Your task to perform on an android device: Open Google Image 0: 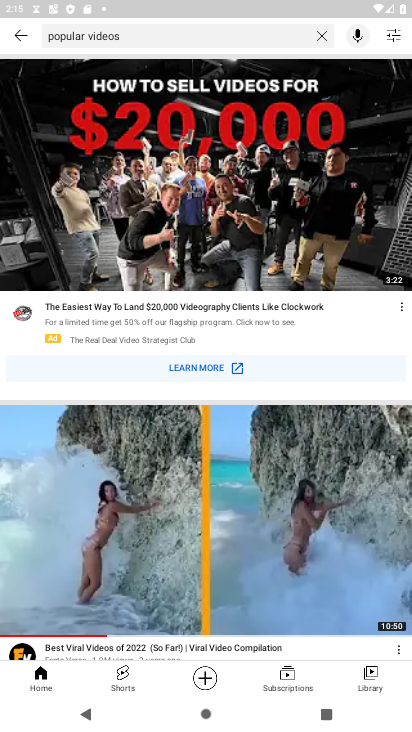
Step 0: click (291, 78)
Your task to perform on an android device: Open Google Image 1: 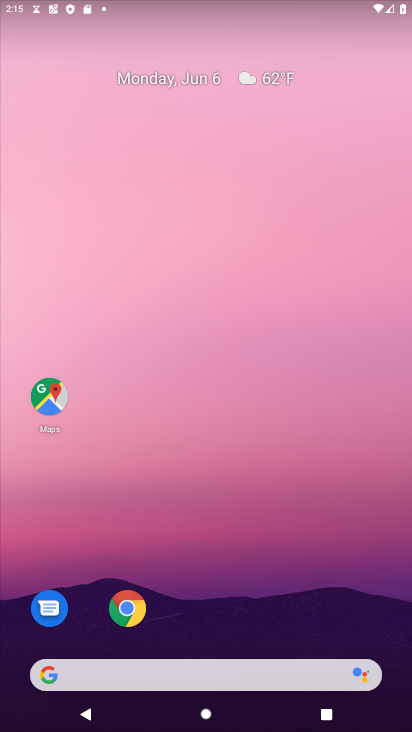
Step 1: drag from (289, 181) to (265, 0)
Your task to perform on an android device: Open Google Image 2: 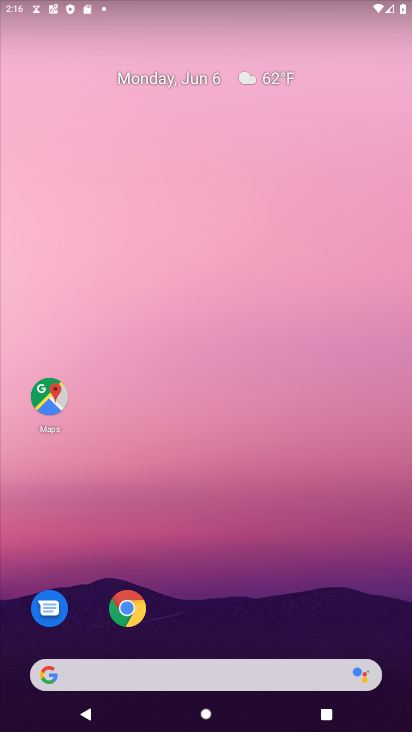
Step 2: drag from (261, 596) to (270, 121)
Your task to perform on an android device: Open Google Image 3: 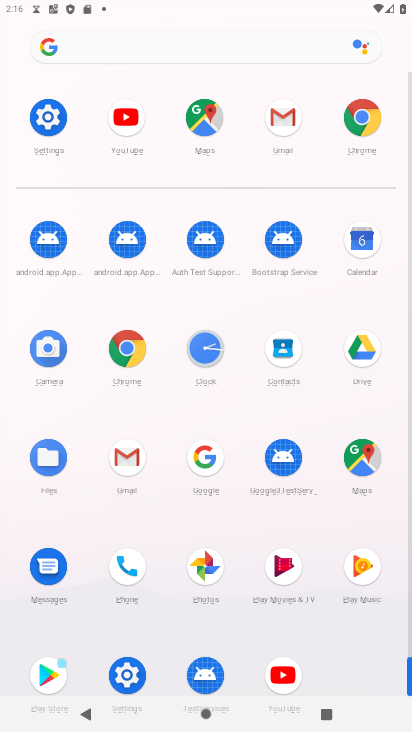
Step 3: click (187, 470)
Your task to perform on an android device: Open Google Image 4: 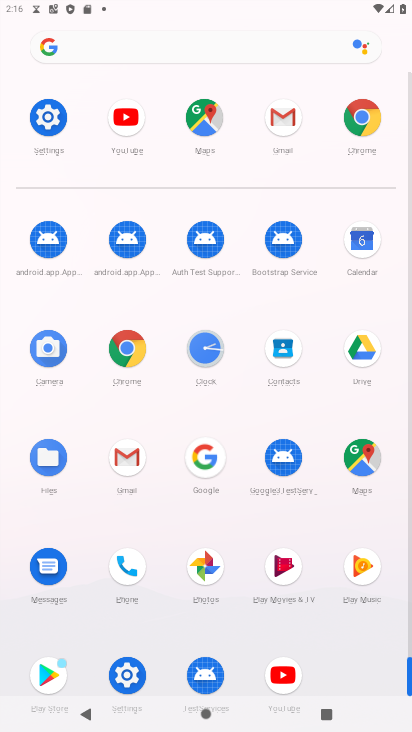
Step 4: click (198, 466)
Your task to perform on an android device: Open Google Image 5: 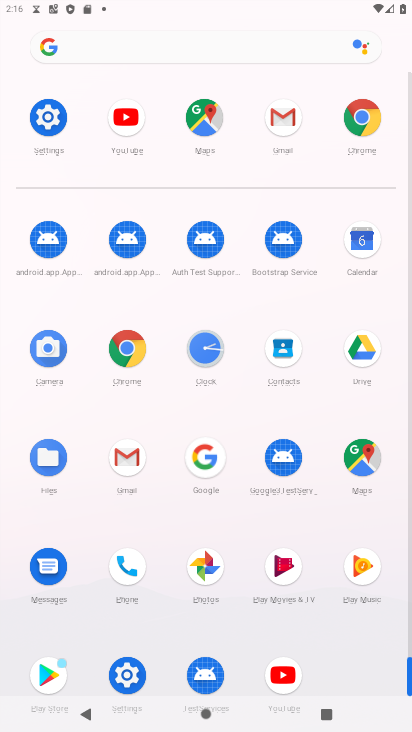
Step 5: click (198, 466)
Your task to perform on an android device: Open Google Image 6: 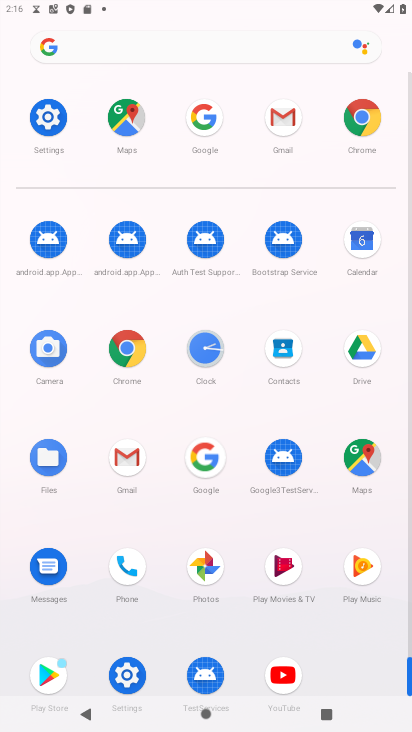
Step 6: click (198, 465)
Your task to perform on an android device: Open Google Image 7: 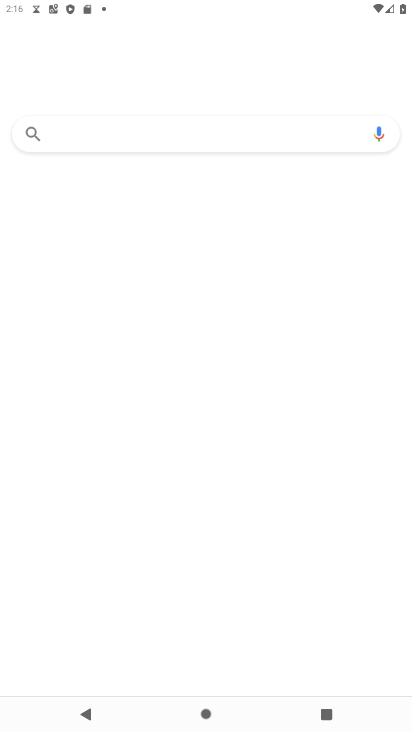
Step 7: click (198, 462)
Your task to perform on an android device: Open Google Image 8: 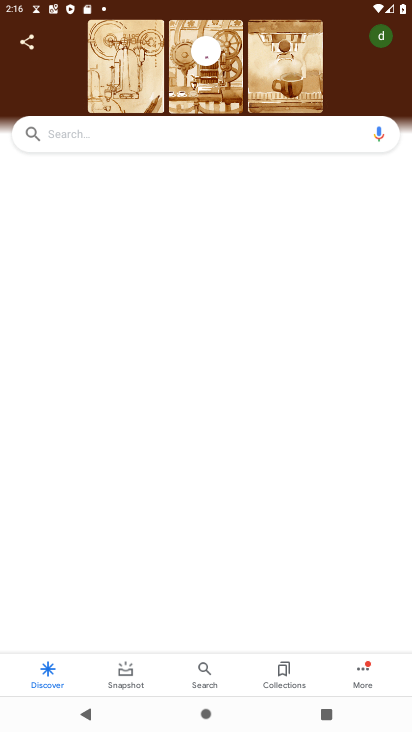
Step 8: task complete